Your task to perform on an android device: Go to Reddit.com Image 0: 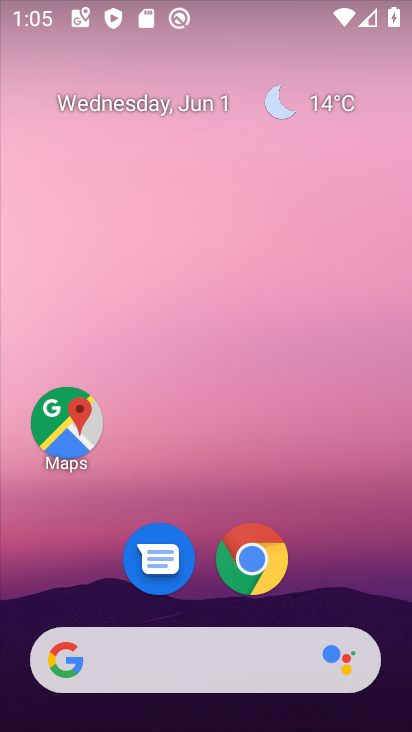
Step 0: click (322, 477)
Your task to perform on an android device: Go to Reddit.com Image 1: 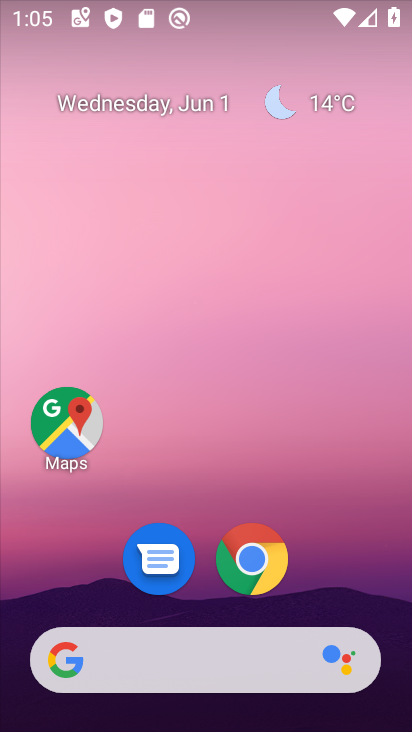
Step 1: click (258, 557)
Your task to perform on an android device: Go to Reddit.com Image 2: 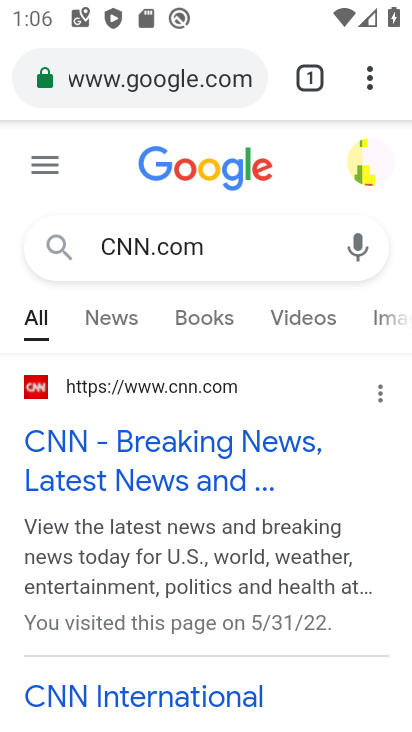
Step 2: click (247, 72)
Your task to perform on an android device: Go to Reddit.com Image 3: 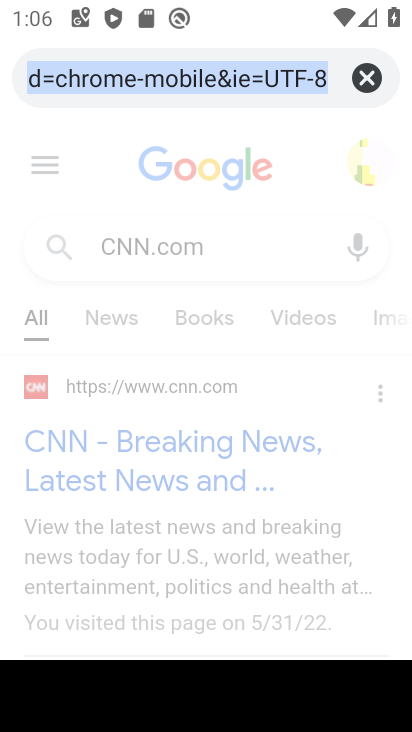
Step 3: type "Reddit.com"
Your task to perform on an android device: Go to Reddit.com Image 4: 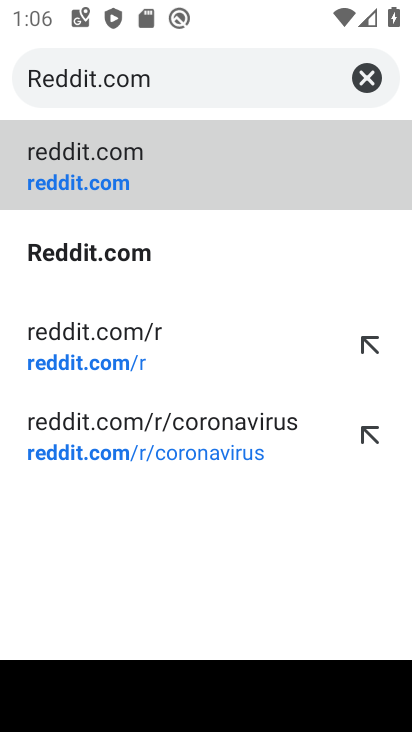
Step 4: click (361, 78)
Your task to perform on an android device: Go to Reddit.com Image 5: 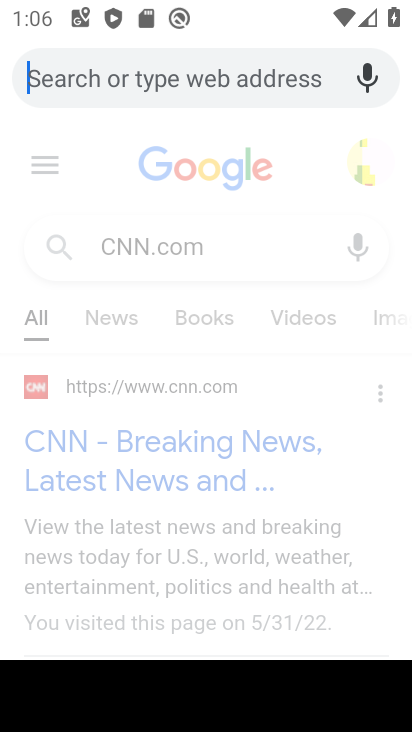
Step 5: click (310, 65)
Your task to perform on an android device: Go to Reddit.com Image 6: 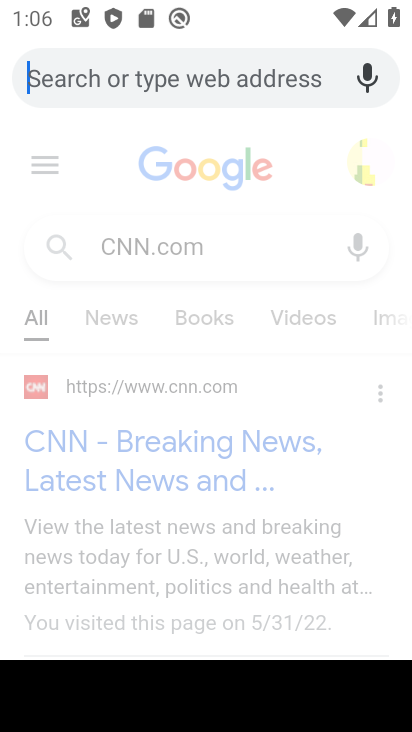
Step 6: type "Reddit.com"
Your task to perform on an android device: Go to Reddit.com Image 7: 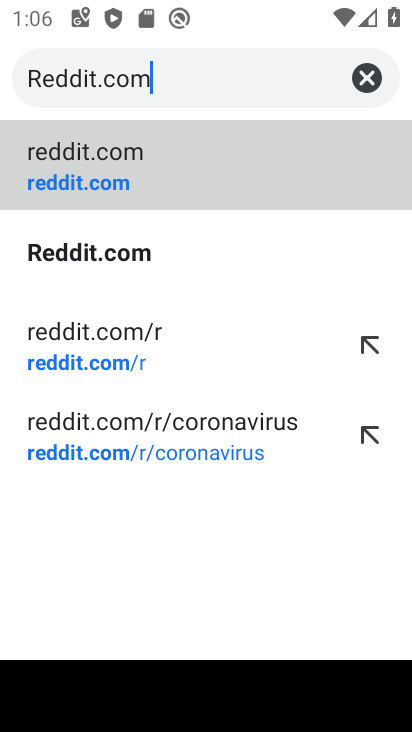
Step 7: click (88, 249)
Your task to perform on an android device: Go to Reddit.com Image 8: 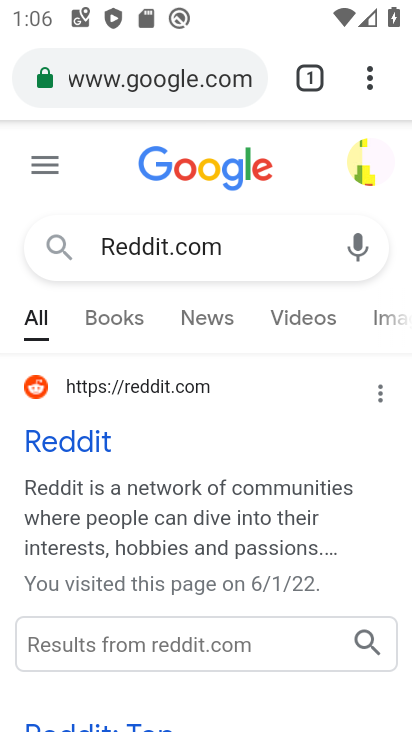
Step 8: task complete